Your task to perform on an android device: install app "Spotify: Music and Podcasts" Image 0: 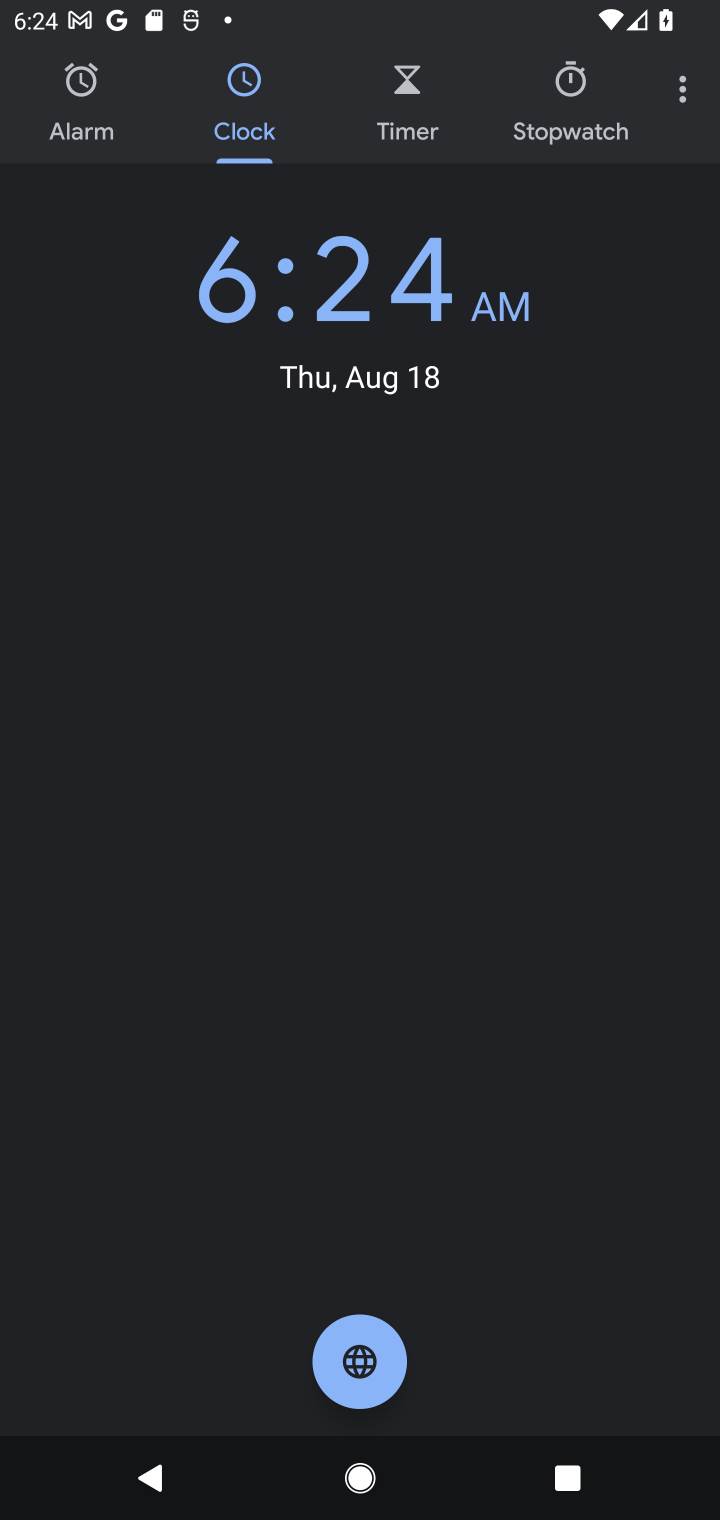
Step 0: press home button
Your task to perform on an android device: install app "Spotify: Music and Podcasts" Image 1: 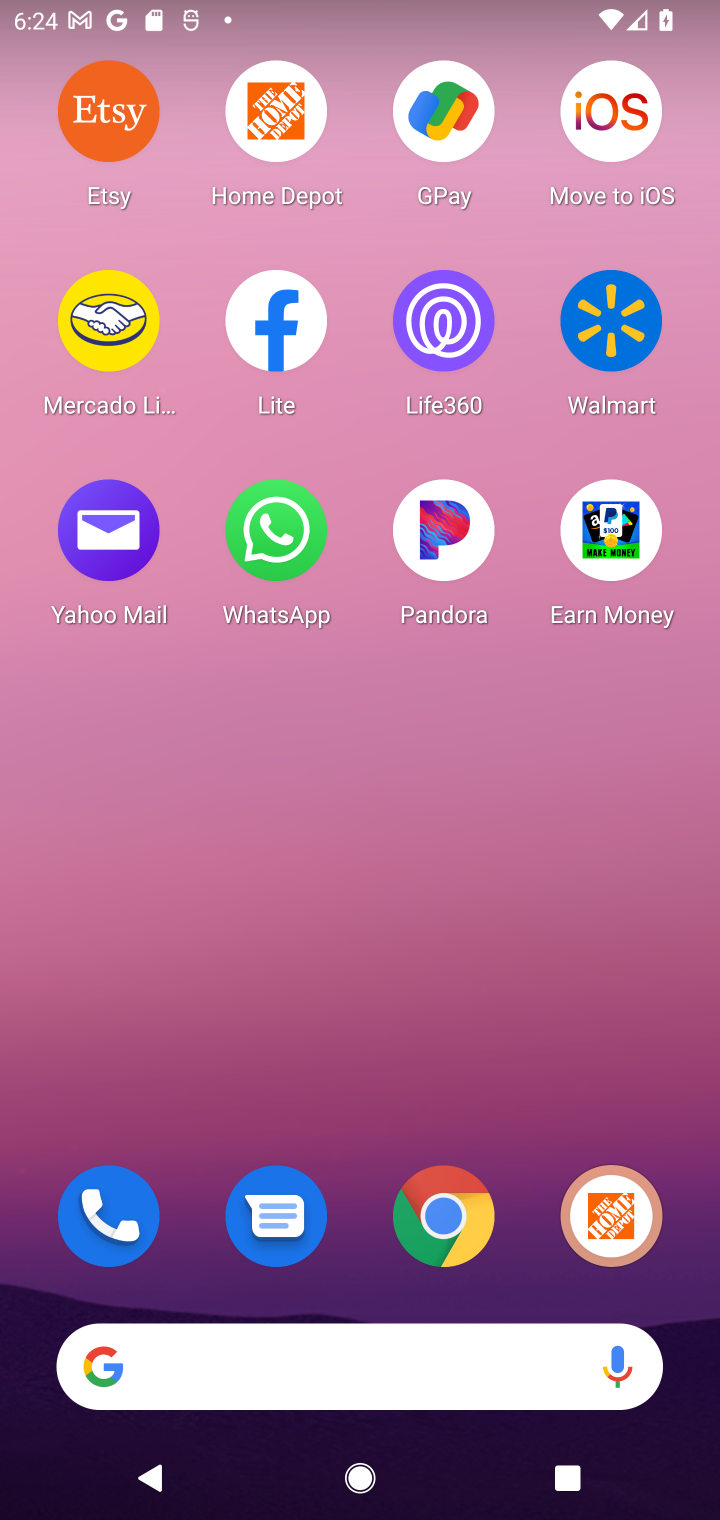
Step 1: drag from (519, 1258) to (513, 384)
Your task to perform on an android device: install app "Spotify: Music and Podcasts" Image 2: 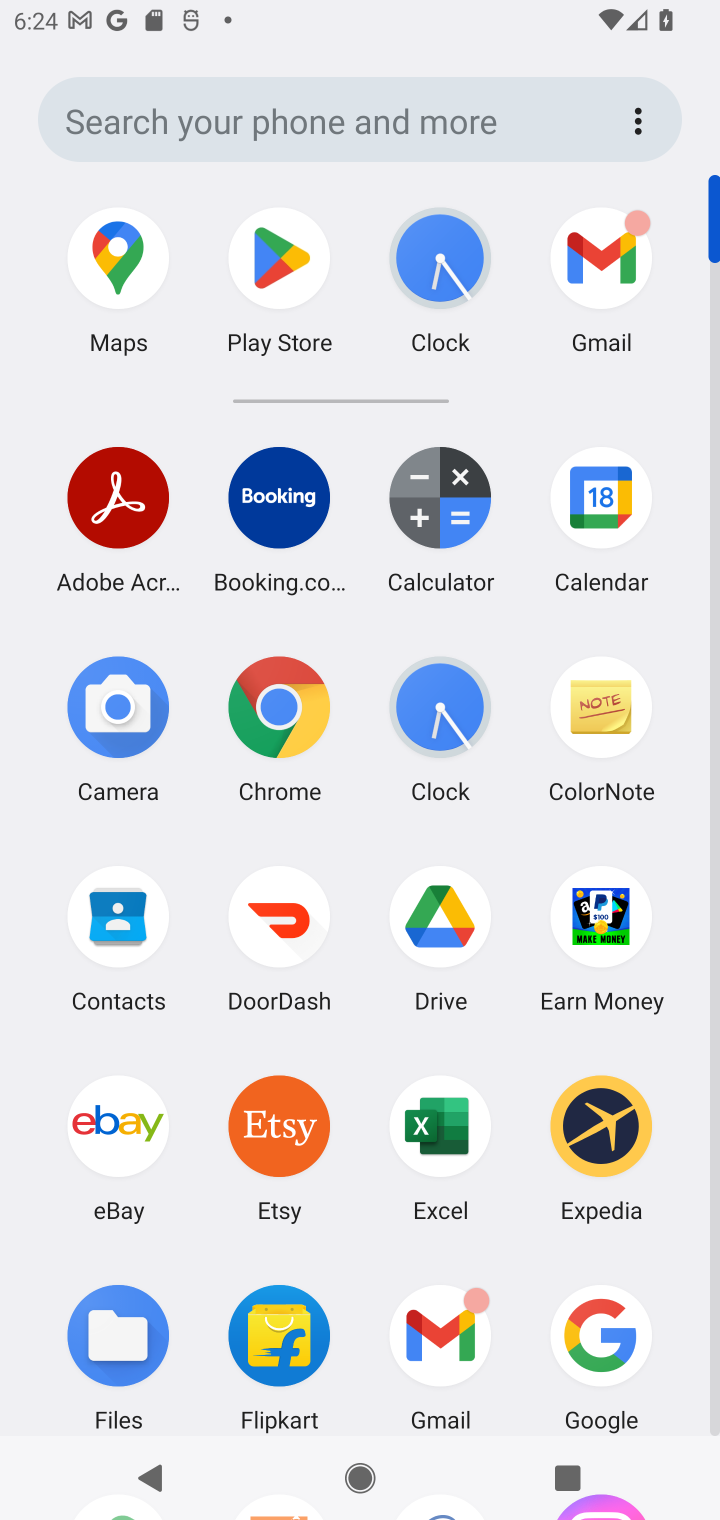
Step 2: drag from (524, 1336) to (521, 533)
Your task to perform on an android device: install app "Spotify: Music and Podcasts" Image 3: 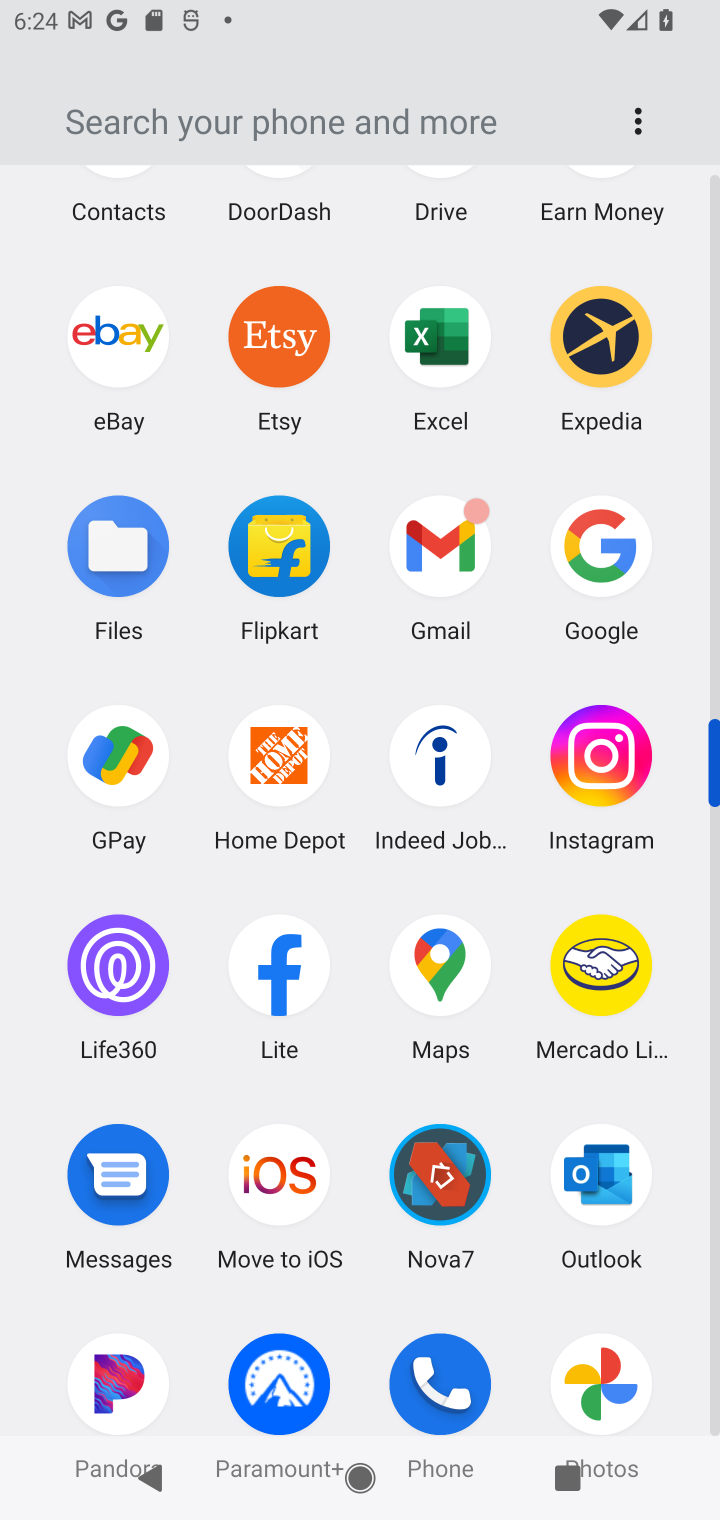
Step 3: drag from (513, 1258) to (511, 495)
Your task to perform on an android device: install app "Spotify: Music and Podcasts" Image 4: 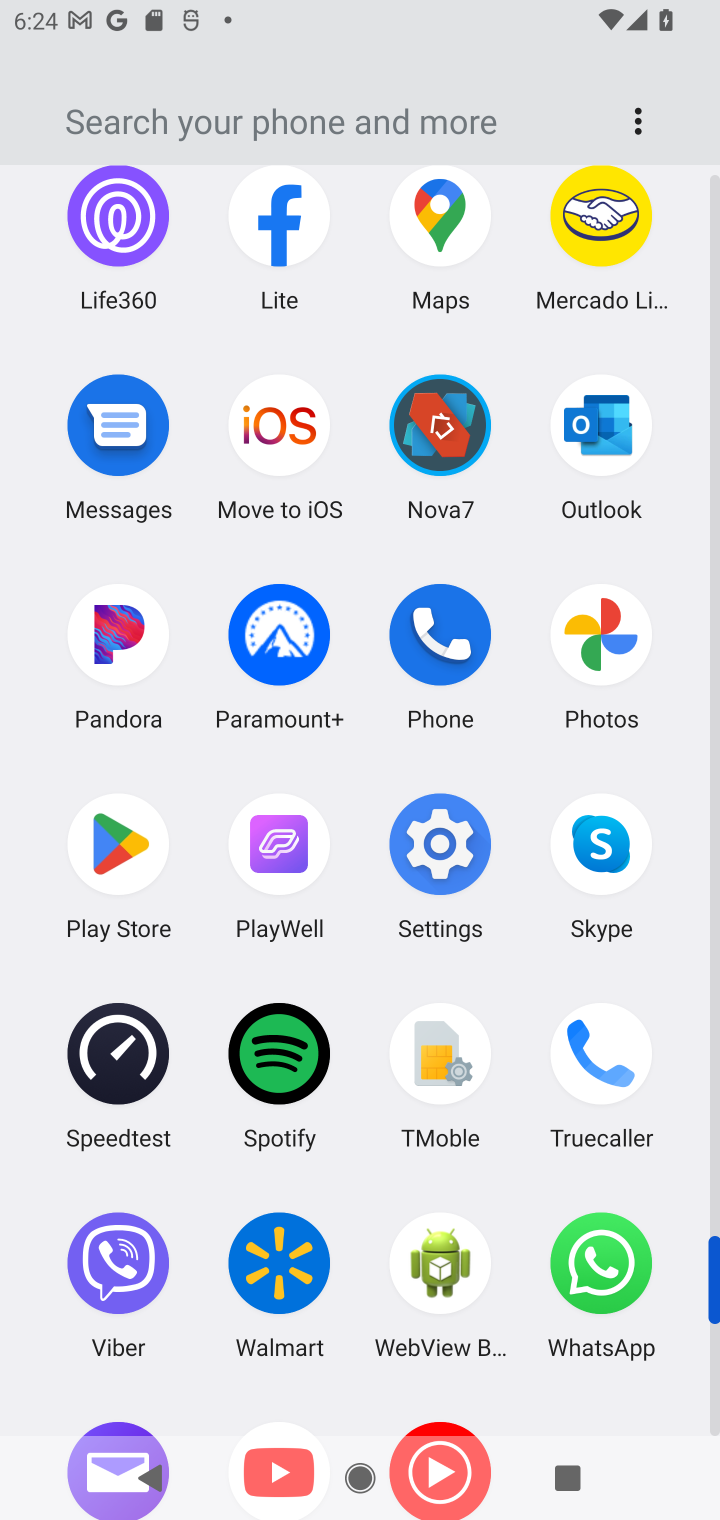
Step 4: click (268, 1055)
Your task to perform on an android device: install app "Spotify: Music and Podcasts" Image 5: 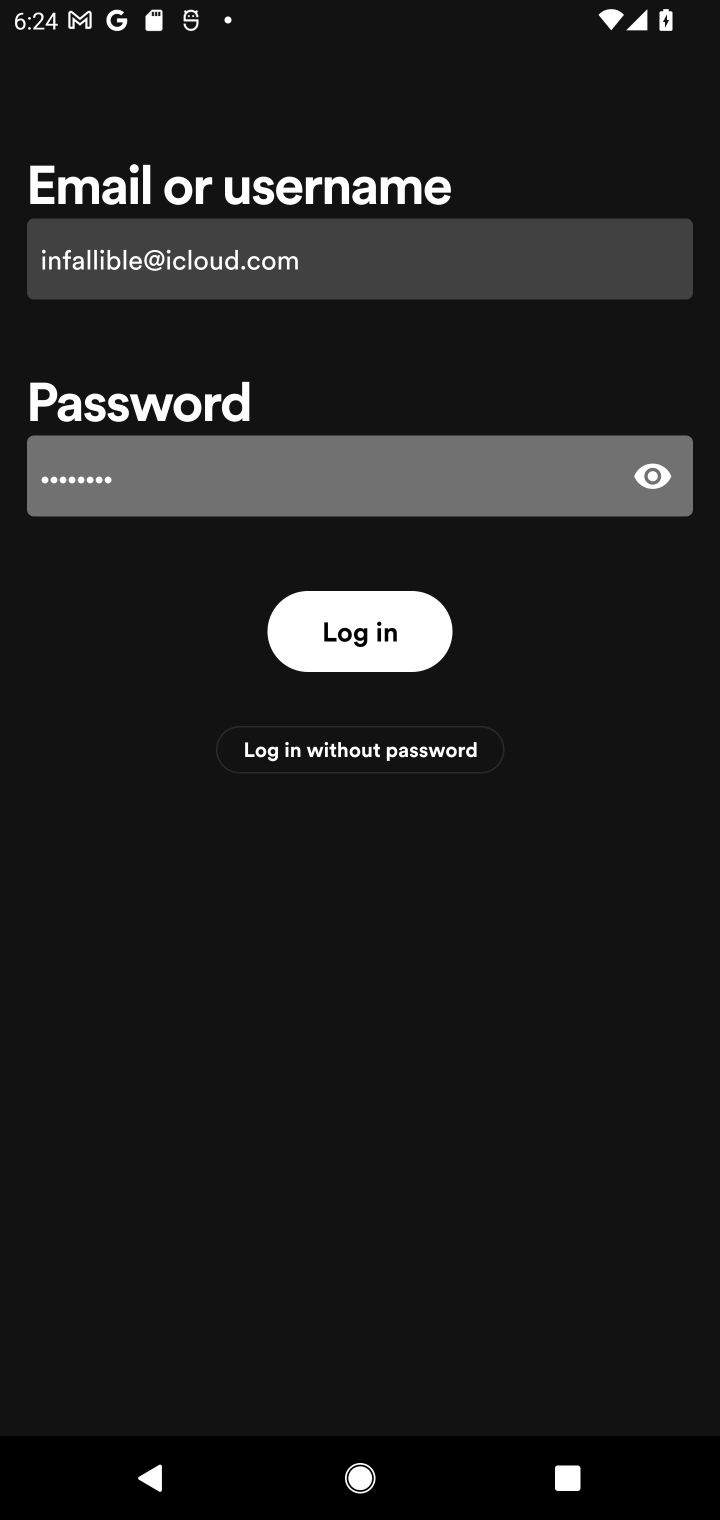
Step 5: task complete